Your task to perform on an android device: Add usb-a to usb-b to the cart on target Image 0: 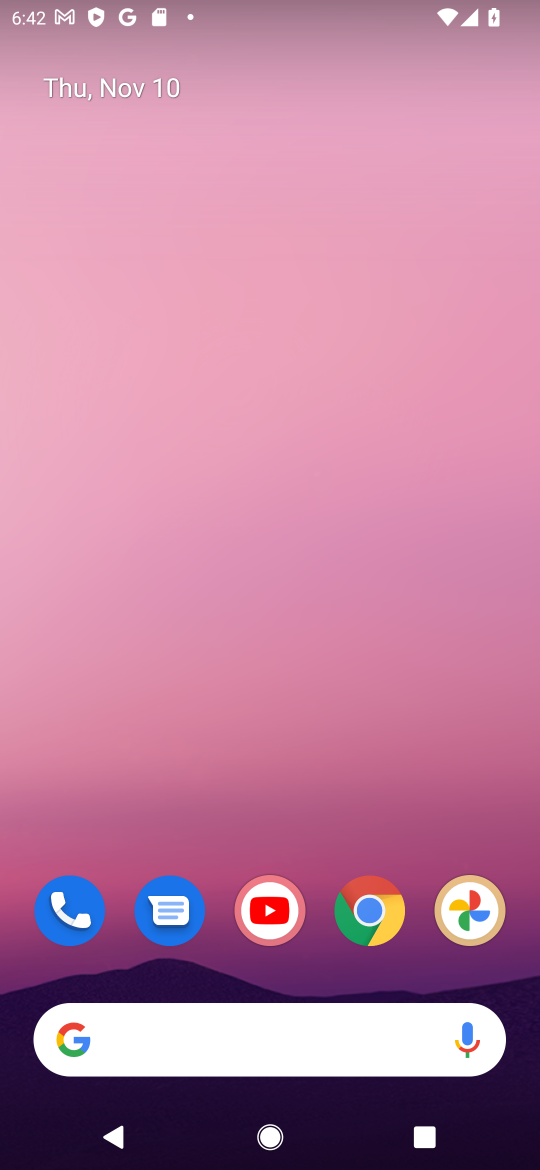
Step 0: click (370, 907)
Your task to perform on an android device: Add usb-a to usb-b to the cart on target Image 1: 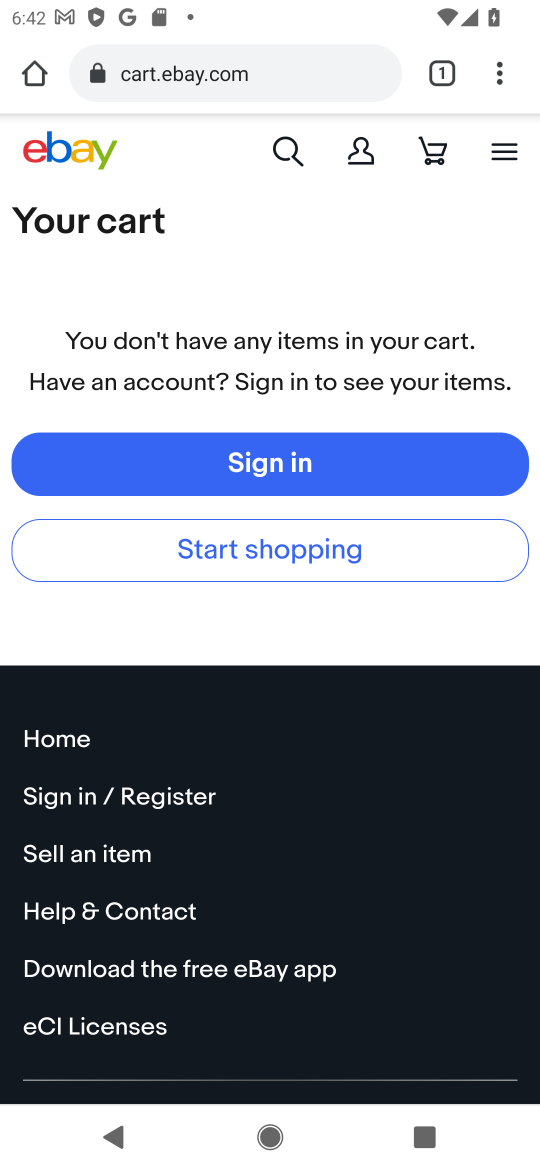
Step 1: click (294, 87)
Your task to perform on an android device: Add usb-a to usb-b to the cart on target Image 2: 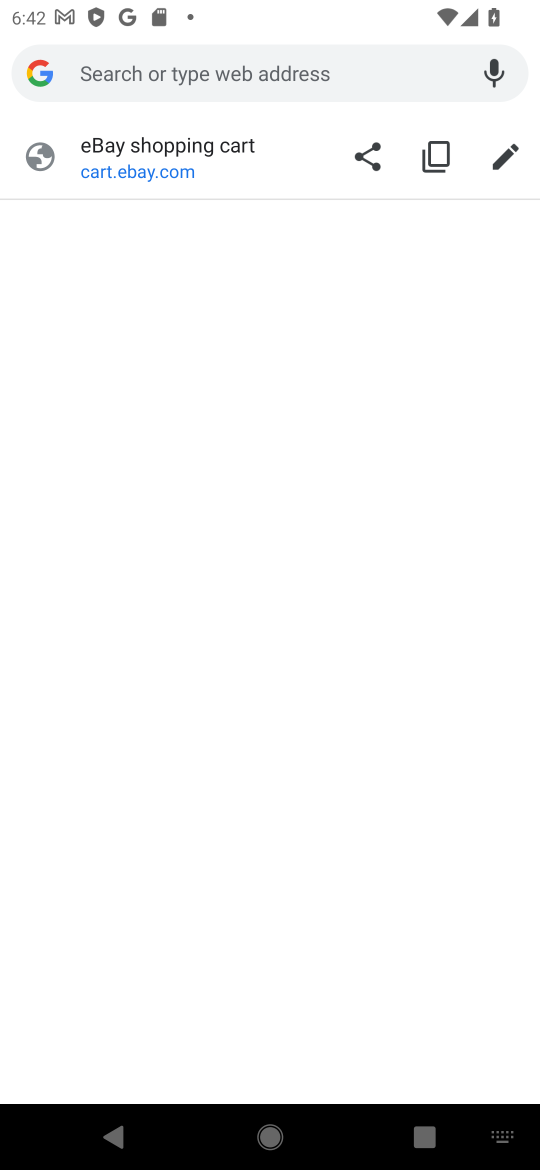
Step 2: type "target"
Your task to perform on an android device: Add usb-a to usb-b to the cart on target Image 3: 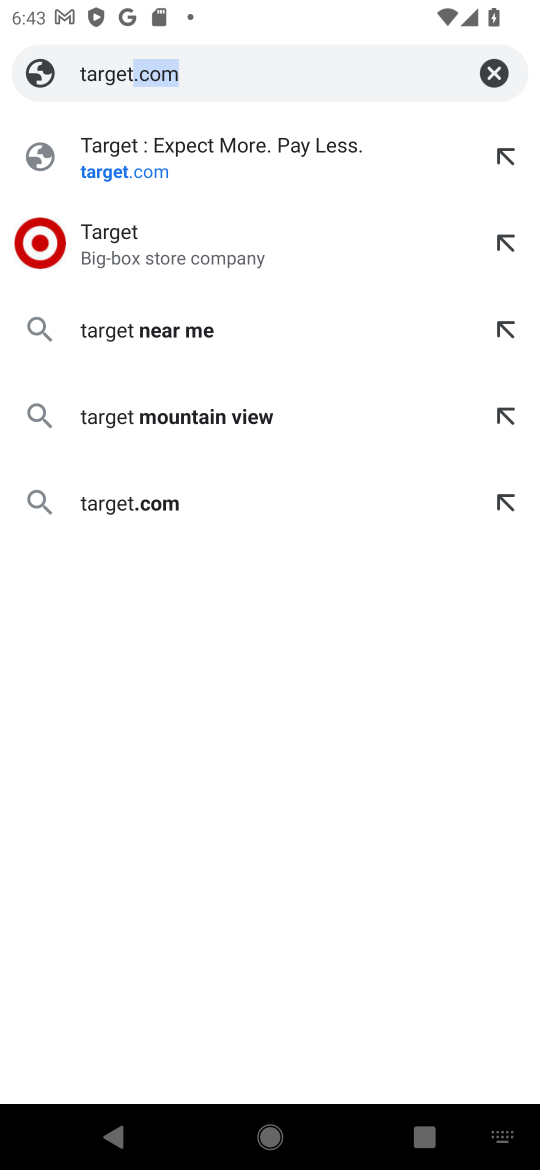
Step 3: click (103, 237)
Your task to perform on an android device: Add usb-a to usb-b to the cart on target Image 4: 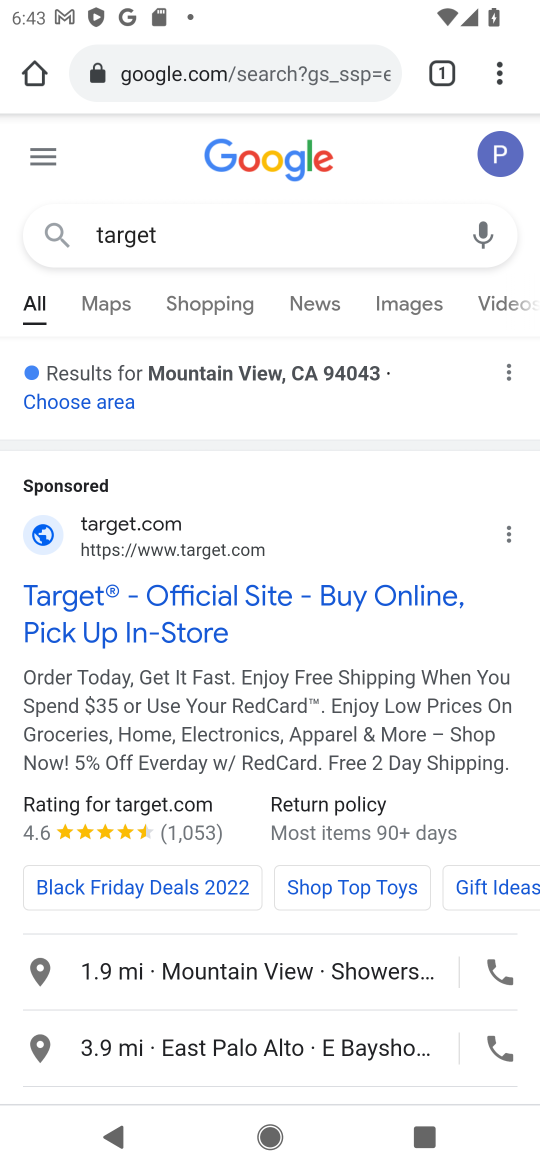
Step 4: drag from (218, 479) to (372, 128)
Your task to perform on an android device: Add usb-a to usb-b to the cart on target Image 5: 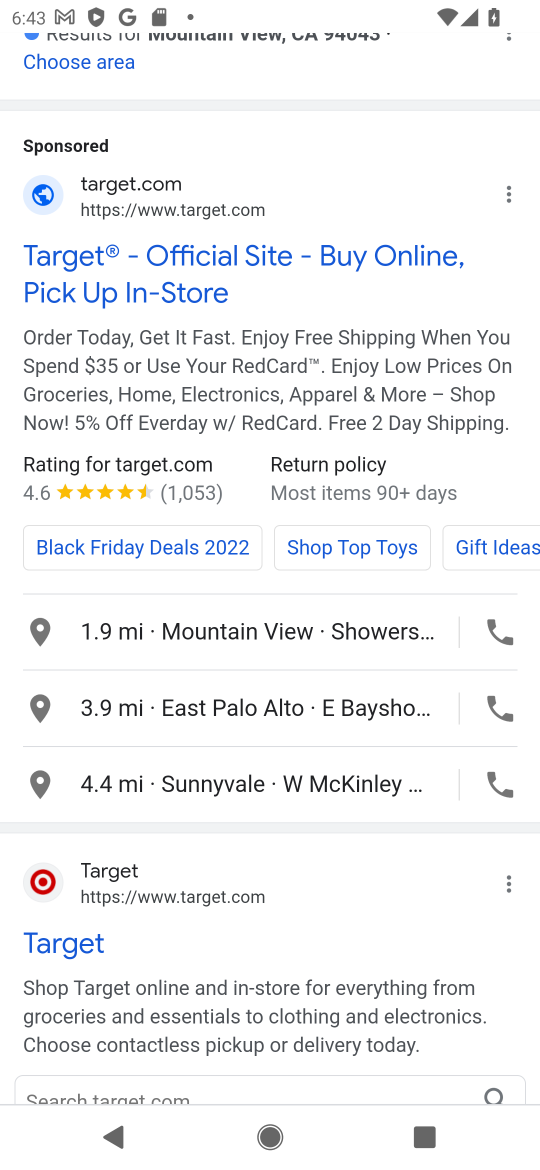
Step 5: click (206, 931)
Your task to perform on an android device: Add usb-a to usb-b to the cart on target Image 6: 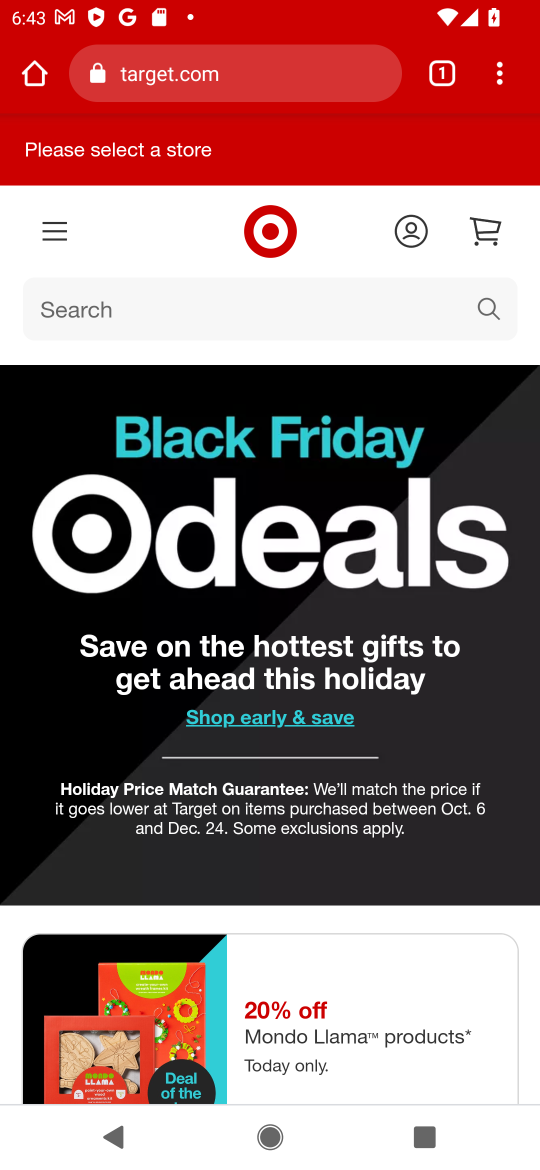
Step 6: click (301, 315)
Your task to perform on an android device: Add usb-a to usb-b to the cart on target Image 7: 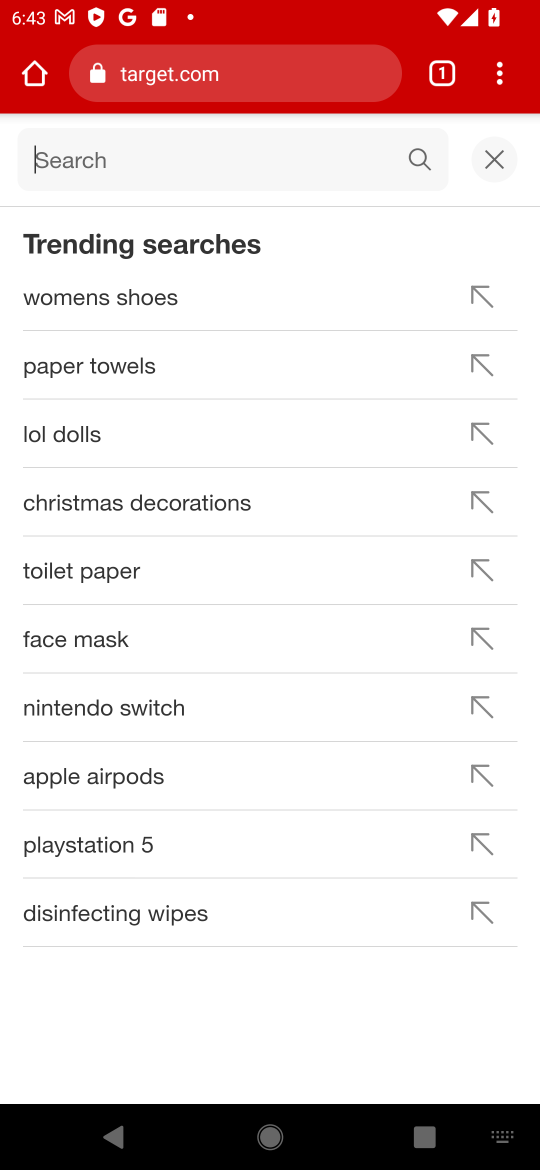
Step 7: type "usb-a to usb-b"
Your task to perform on an android device: Add usb-a to usb-b to the cart on target Image 8: 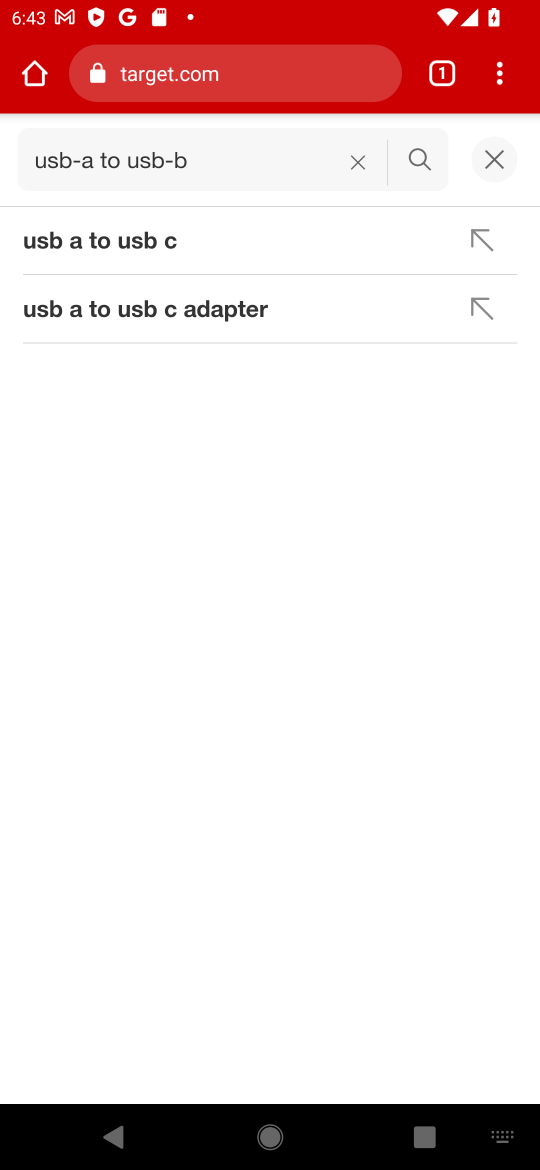
Step 8: click (414, 150)
Your task to perform on an android device: Add usb-a to usb-b to the cart on target Image 9: 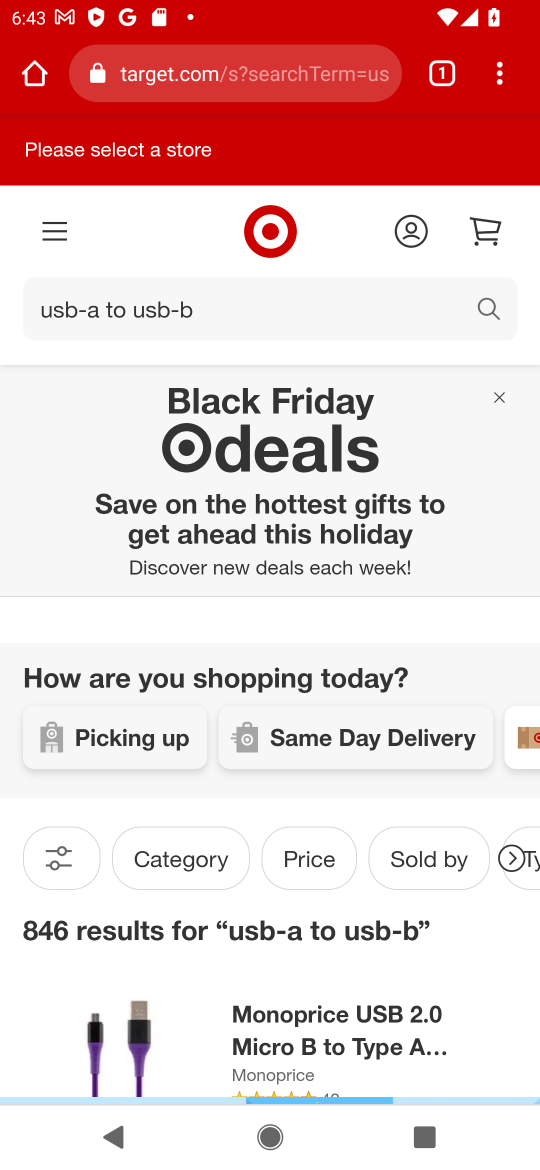
Step 9: drag from (250, 799) to (322, 552)
Your task to perform on an android device: Add usb-a to usb-b to the cart on target Image 10: 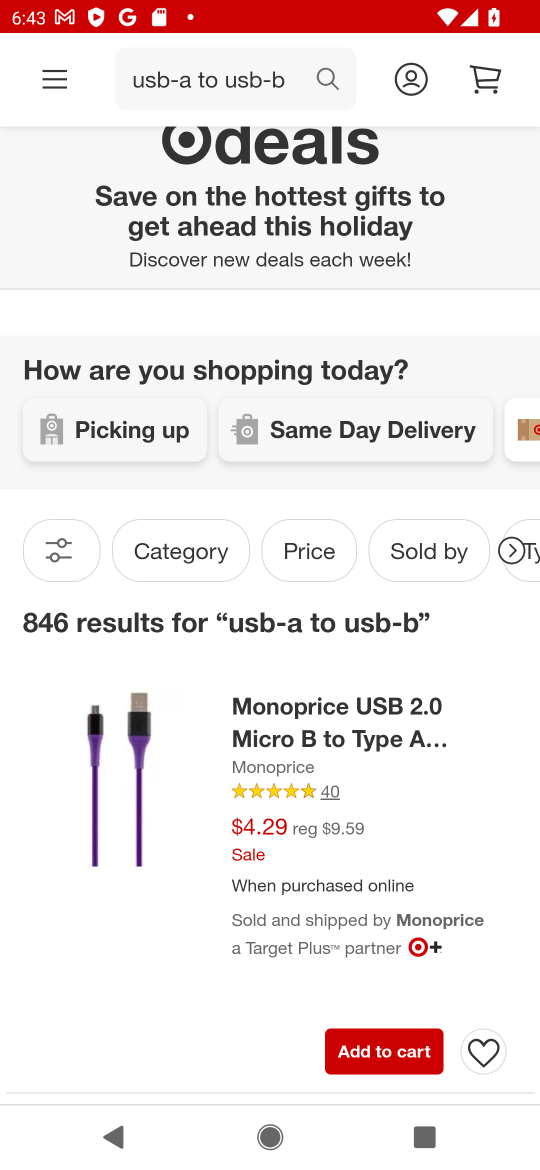
Step 10: drag from (326, 756) to (402, 518)
Your task to perform on an android device: Add usb-a to usb-b to the cart on target Image 11: 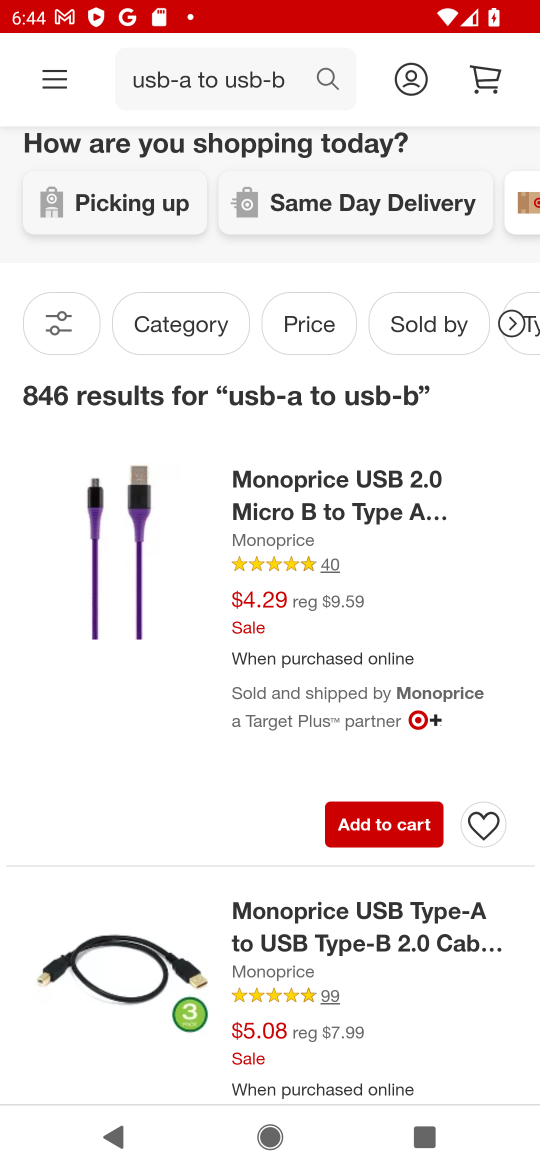
Step 11: click (369, 935)
Your task to perform on an android device: Add usb-a to usb-b to the cart on target Image 12: 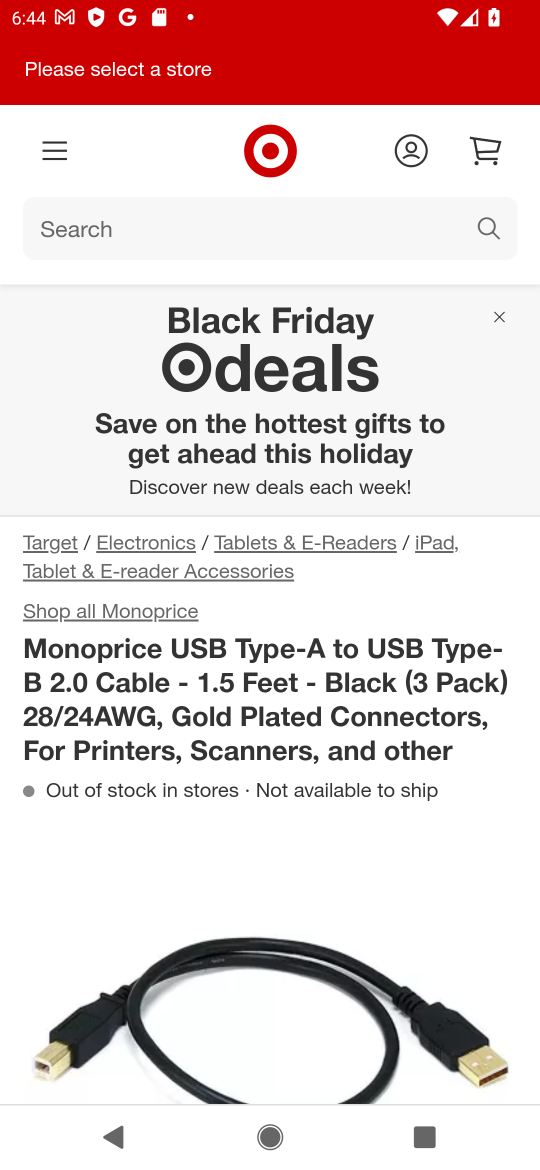
Step 12: drag from (353, 923) to (406, 543)
Your task to perform on an android device: Add usb-a to usb-b to the cart on target Image 13: 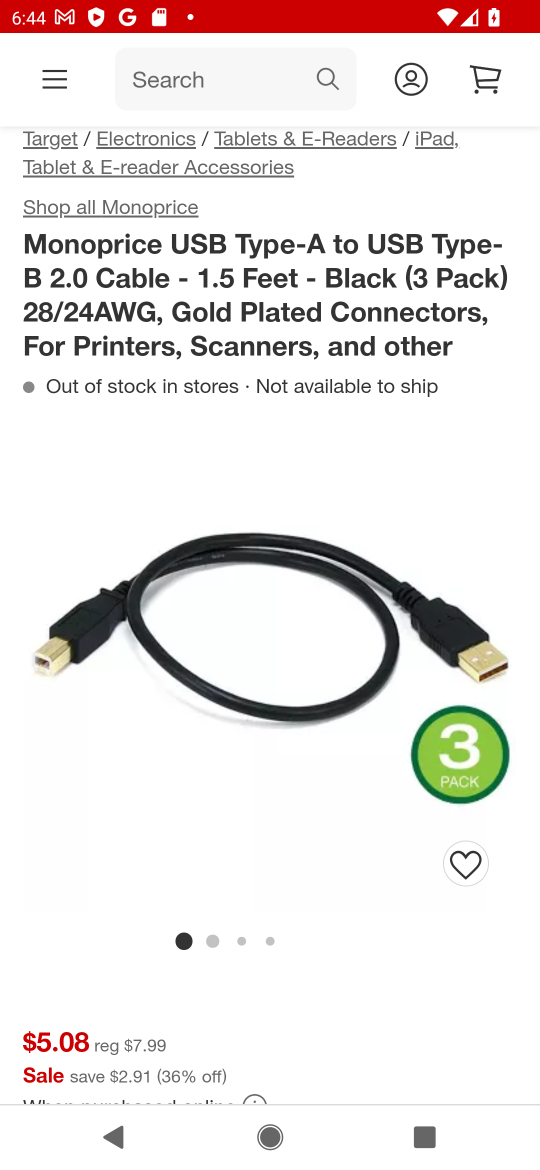
Step 13: drag from (303, 992) to (349, 476)
Your task to perform on an android device: Add usb-a to usb-b to the cart on target Image 14: 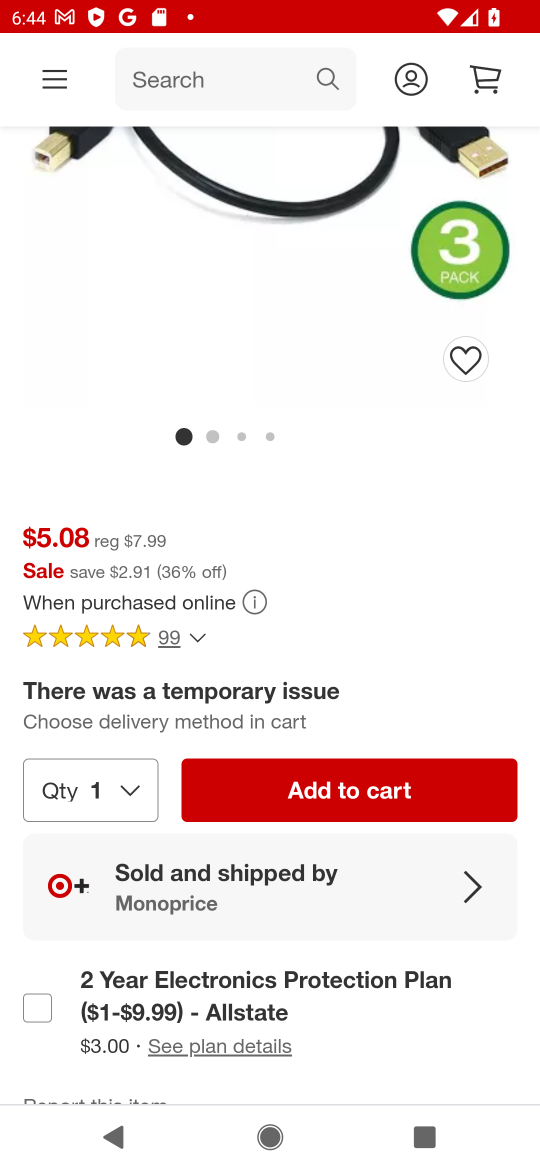
Step 14: click (334, 796)
Your task to perform on an android device: Add usb-a to usb-b to the cart on target Image 15: 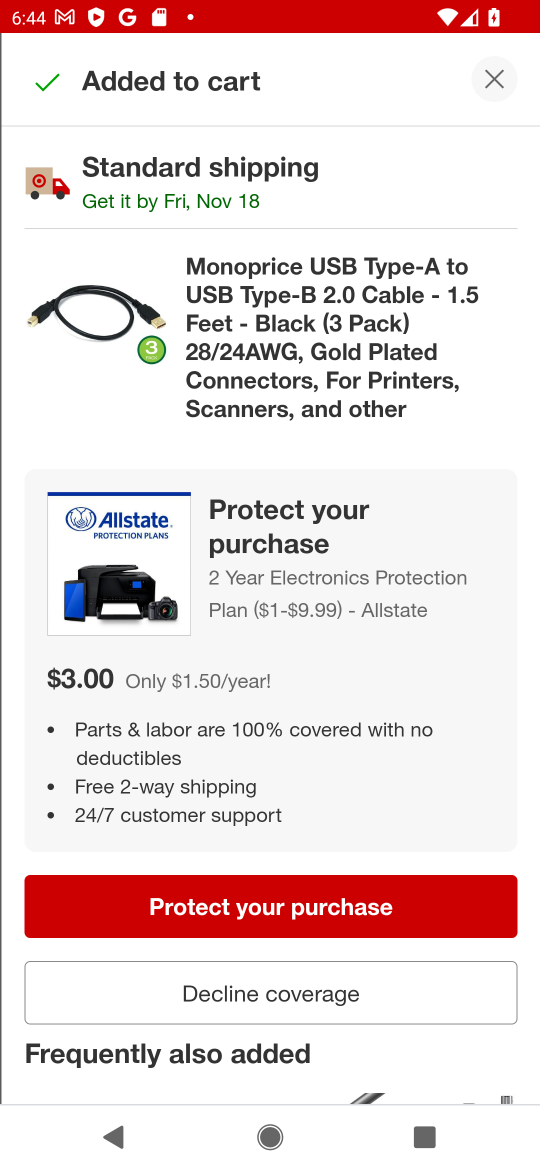
Step 15: click (271, 986)
Your task to perform on an android device: Add usb-a to usb-b to the cart on target Image 16: 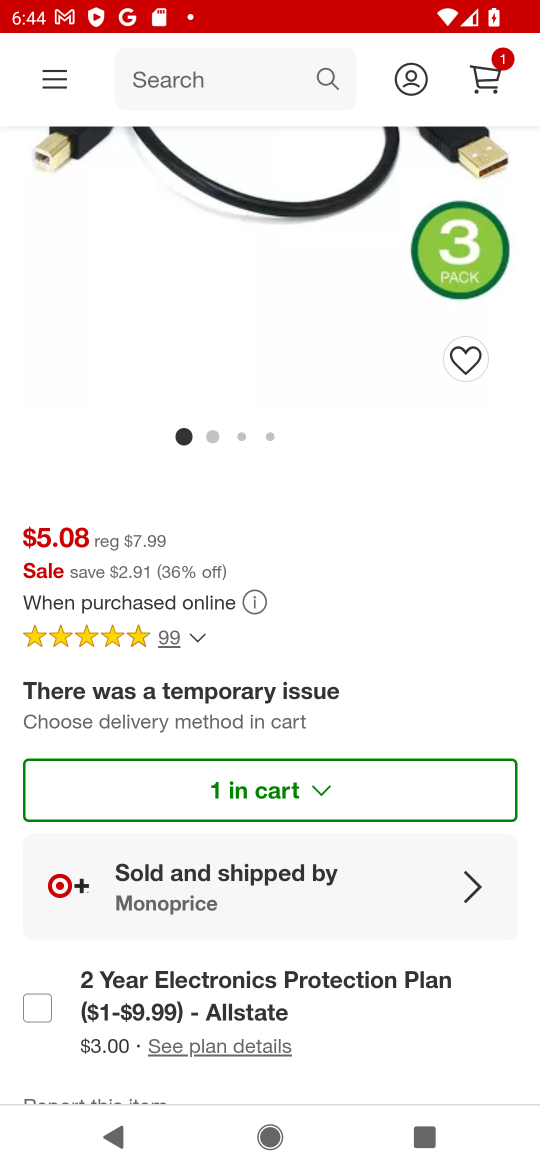
Step 16: task complete